Your task to perform on an android device: set the stopwatch Image 0: 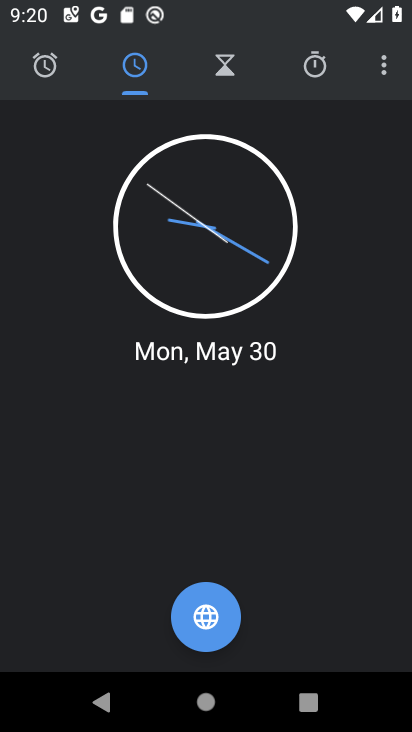
Step 0: click (306, 66)
Your task to perform on an android device: set the stopwatch Image 1: 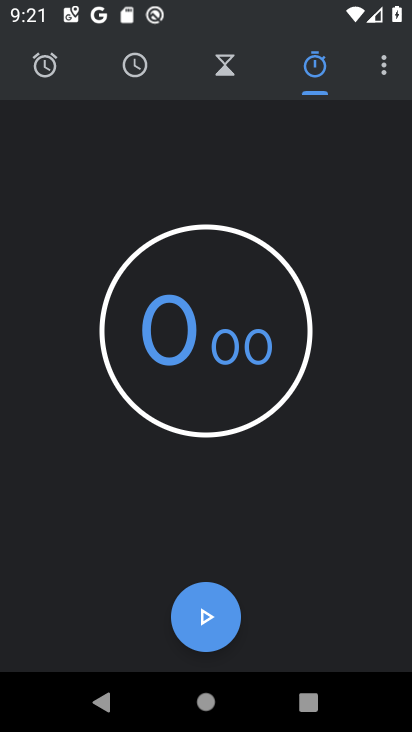
Step 1: task complete